Your task to perform on an android device: Open Wikipedia Image 0: 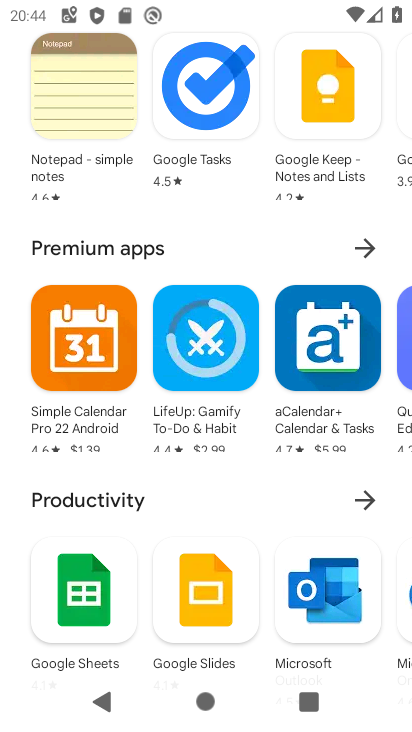
Step 0: press home button
Your task to perform on an android device: Open Wikipedia Image 1: 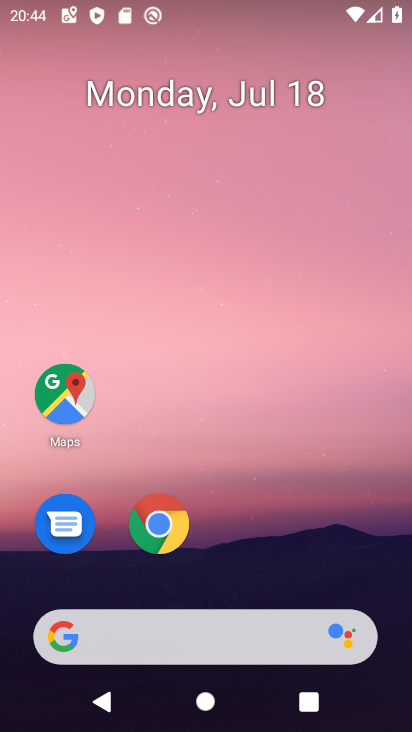
Step 1: click (175, 526)
Your task to perform on an android device: Open Wikipedia Image 2: 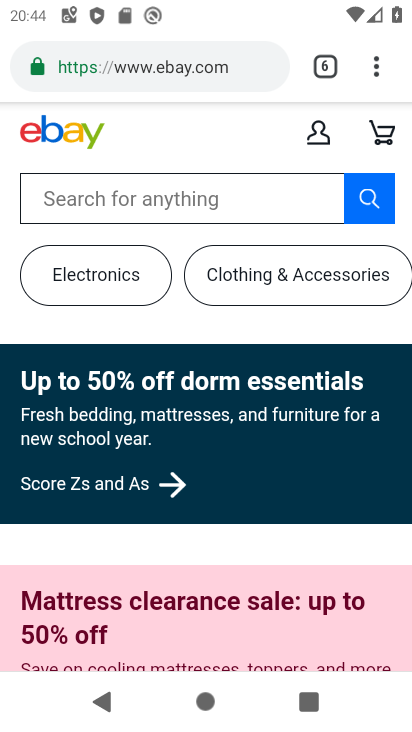
Step 2: click (376, 69)
Your task to perform on an android device: Open Wikipedia Image 3: 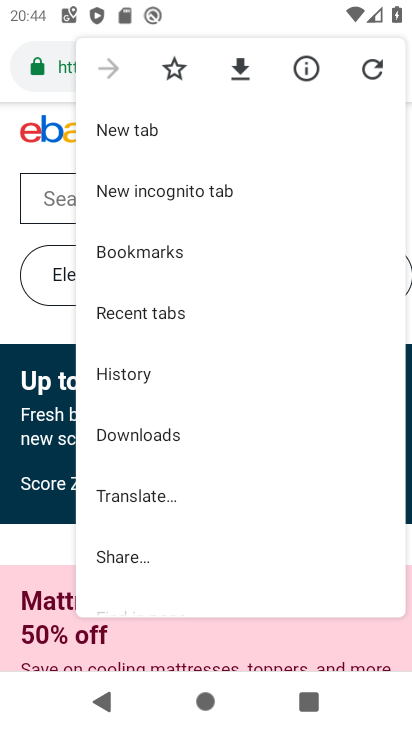
Step 3: click (271, 121)
Your task to perform on an android device: Open Wikipedia Image 4: 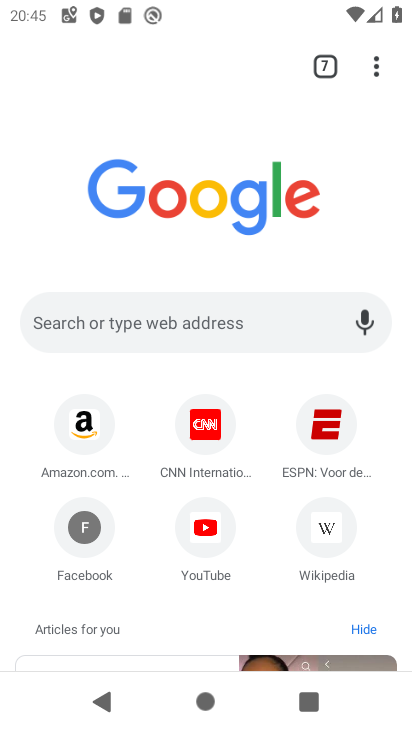
Step 4: click (327, 517)
Your task to perform on an android device: Open Wikipedia Image 5: 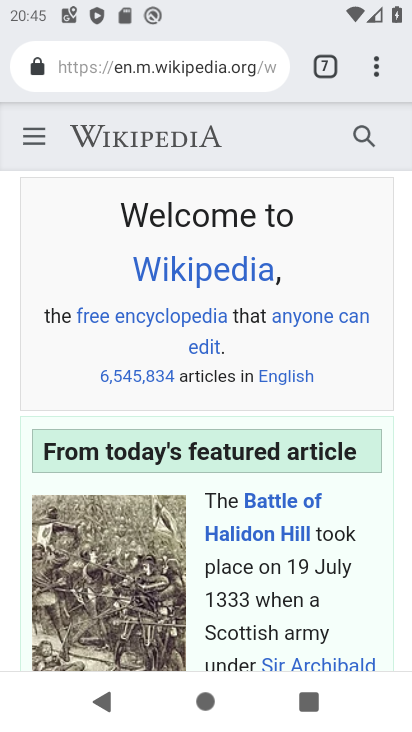
Step 5: task complete